Your task to perform on an android device: Go to network settings Image 0: 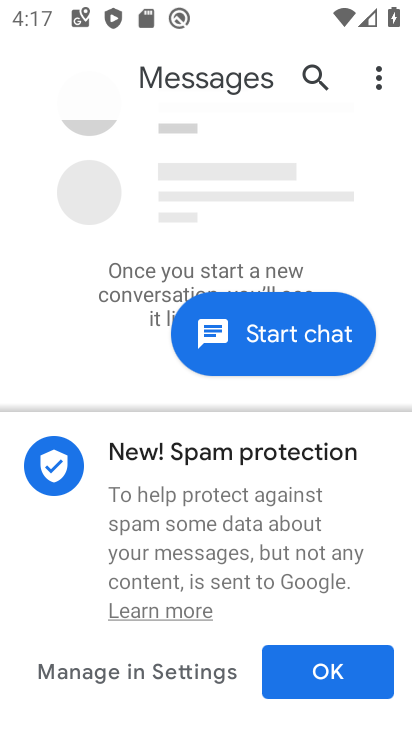
Step 0: press back button
Your task to perform on an android device: Go to network settings Image 1: 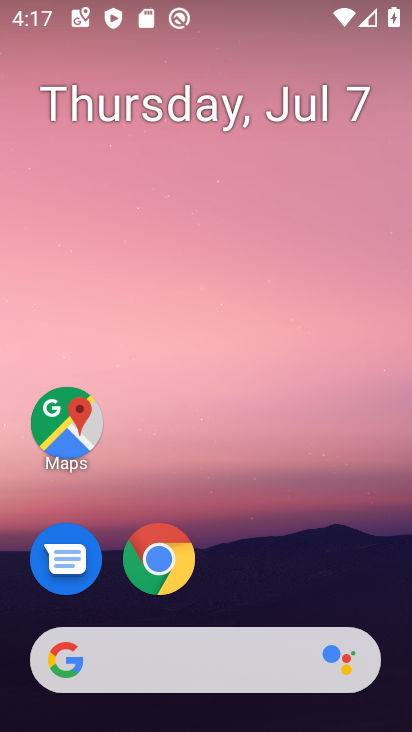
Step 1: drag from (255, 539) to (305, 11)
Your task to perform on an android device: Go to network settings Image 2: 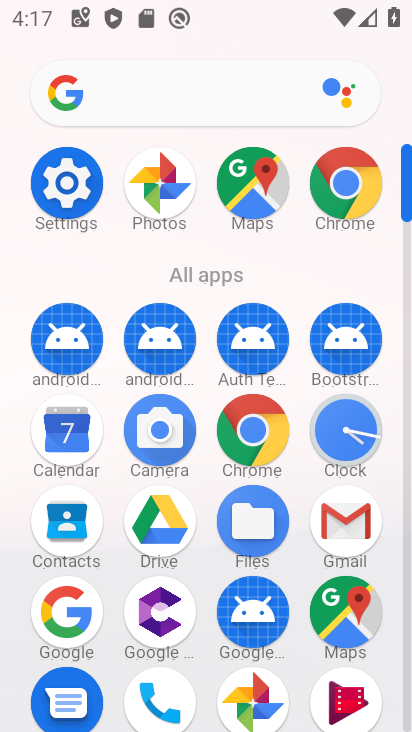
Step 2: click (66, 184)
Your task to perform on an android device: Go to network settings Image 3: 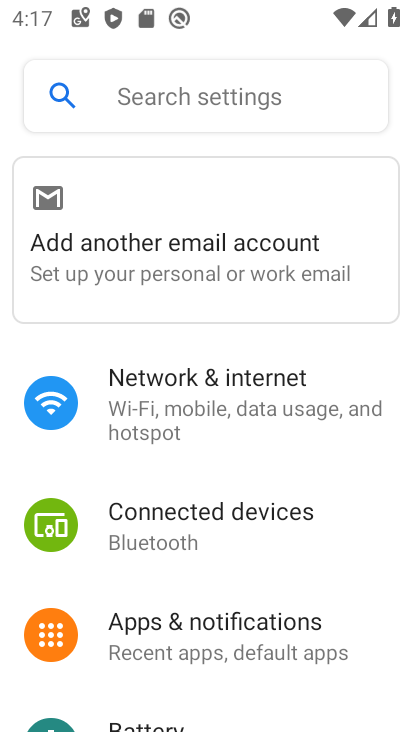
Step 3: click (182, 394)
Your task to perform on an android device: Go to network settings Image 4: 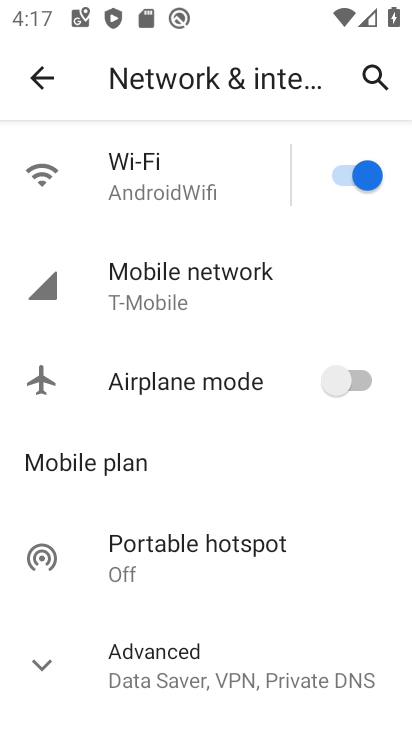
Step 4: task complete